Your task to perform on an android device: turn off picture-in-picture Image 0: 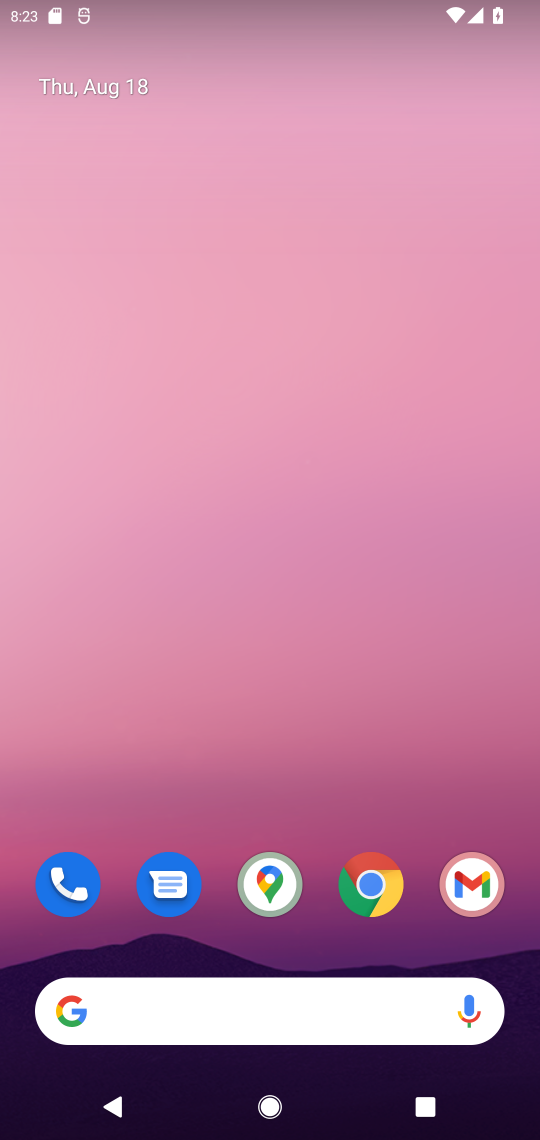
Step 0: click (376, 885)
Your task to perform on an android device: turn off picture-in-picture Image 1: 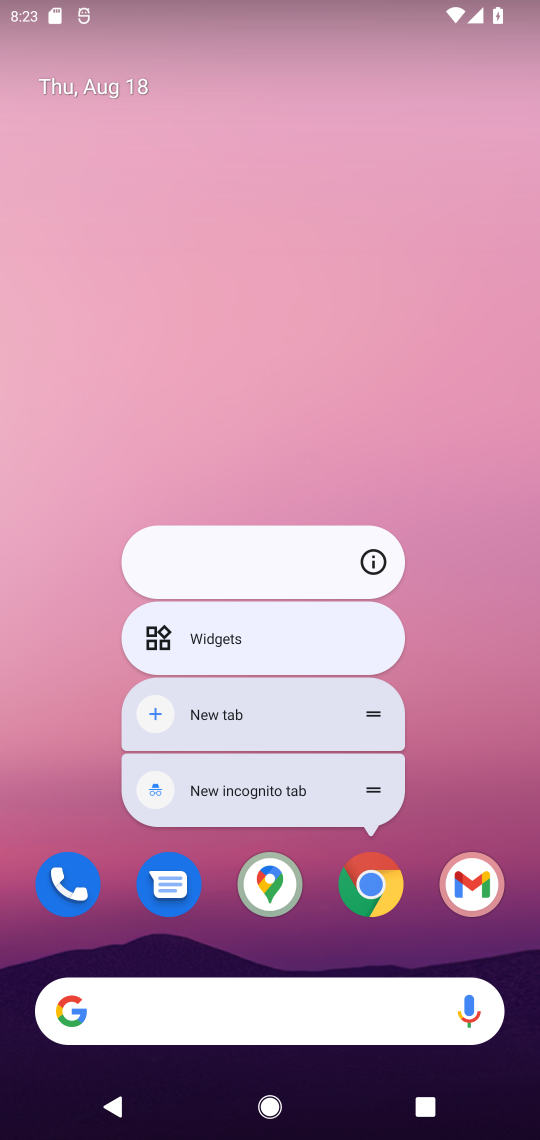
Step 1: click (369, 566)
Your task to perform on an android device: turn off picture-in-picture Image 2: 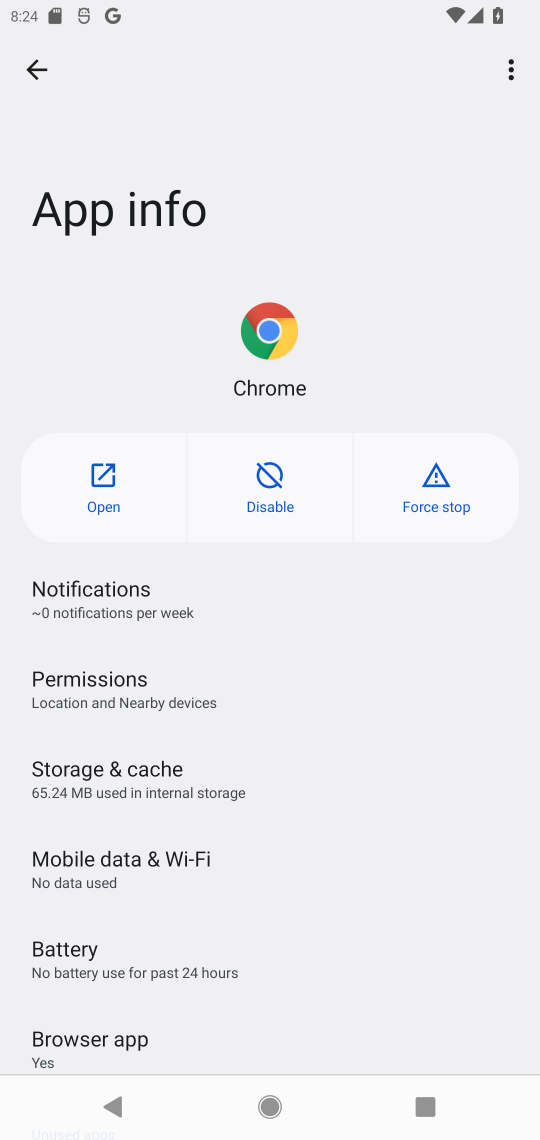
Step 2: drag from (425, 980) to (337, 200)
Your task to perform on an android device: turn off picture-in-picture Image 3: 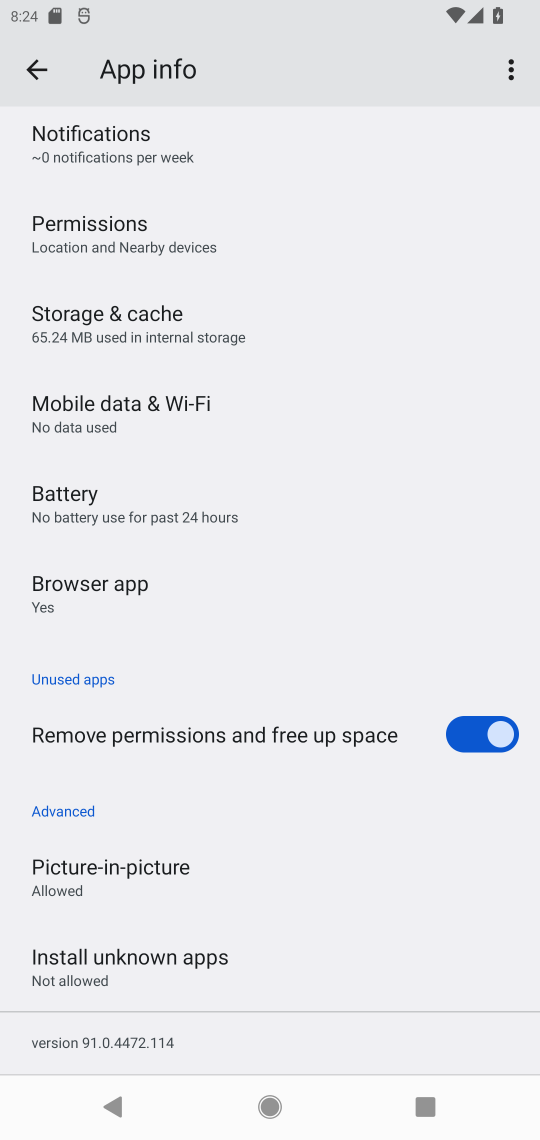
Step 3: click (250, 930)
Your task to perform on an android device: turn off picture-in-picture Image 4: 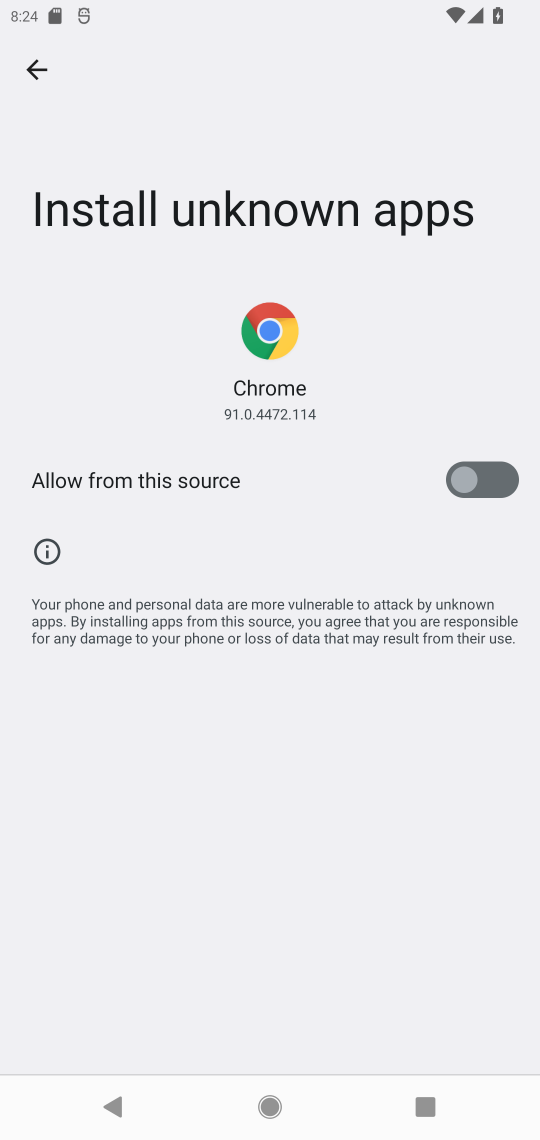
Step 4: click (151, 886)
Your task to perform on an android device: turn off picture-in-picture Image 5: 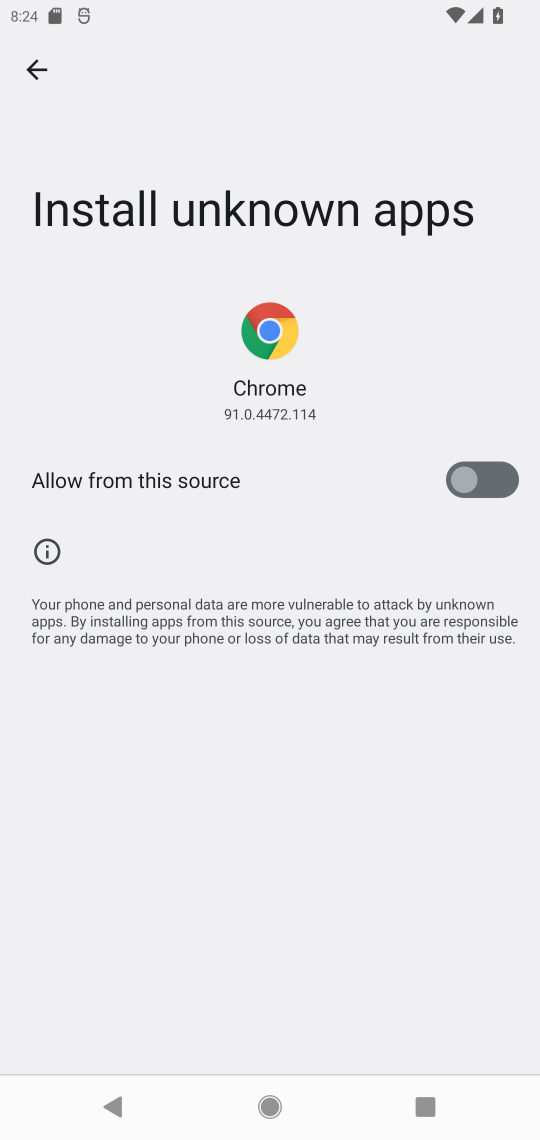
Step 5: click (35, 74)
Your task to perform on an android device: turn off picture-in-picture Image 6: 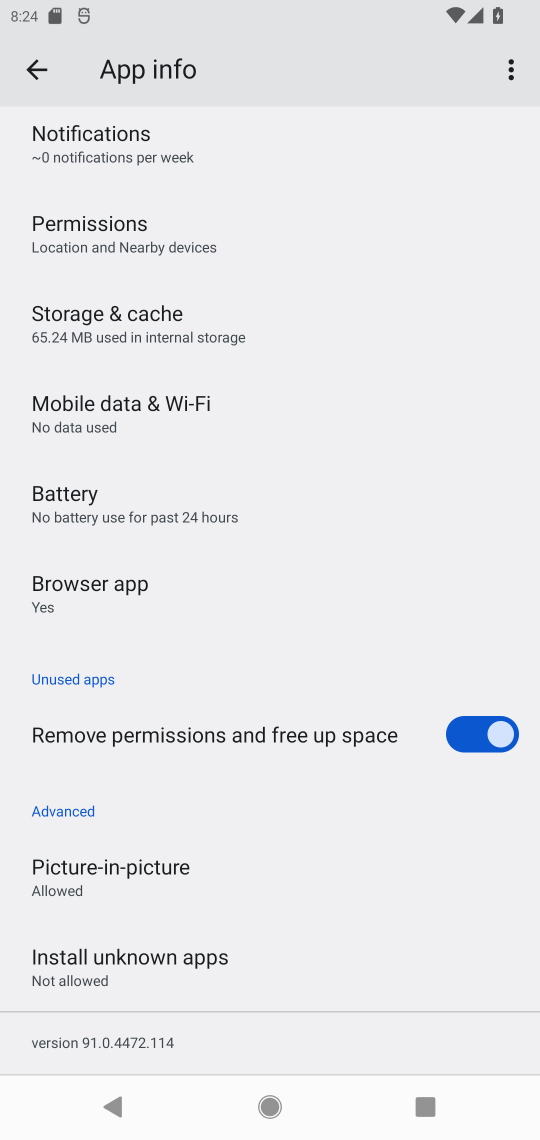
Step 6: click (131, 887)
Your task to perform on an android device: turn off picture-in-picture Image 7: 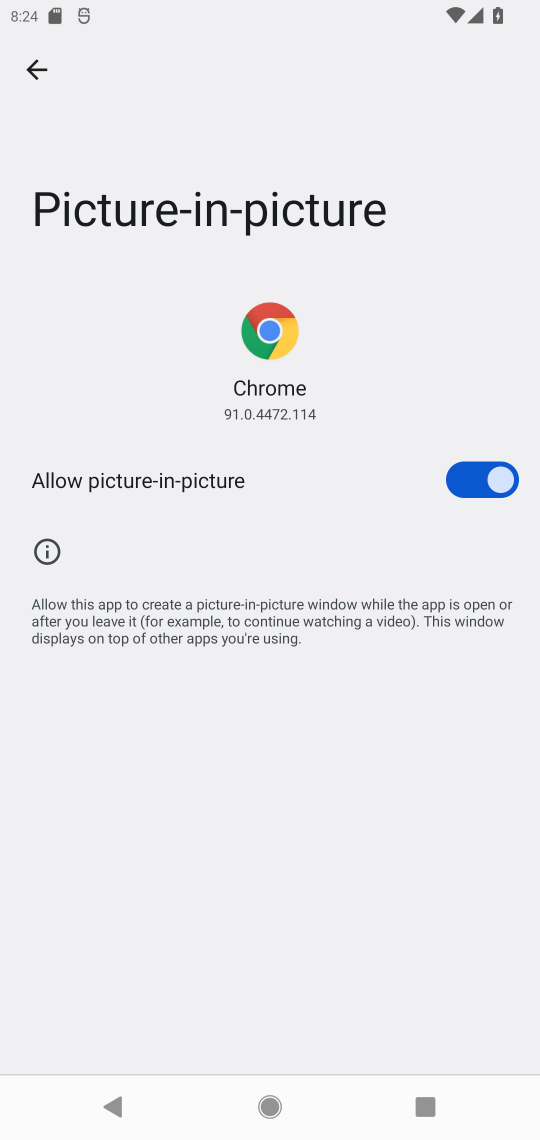
Step 7: click (485, 491)
Your task to perform on an android device: turn off picture-in-picture Image 8: 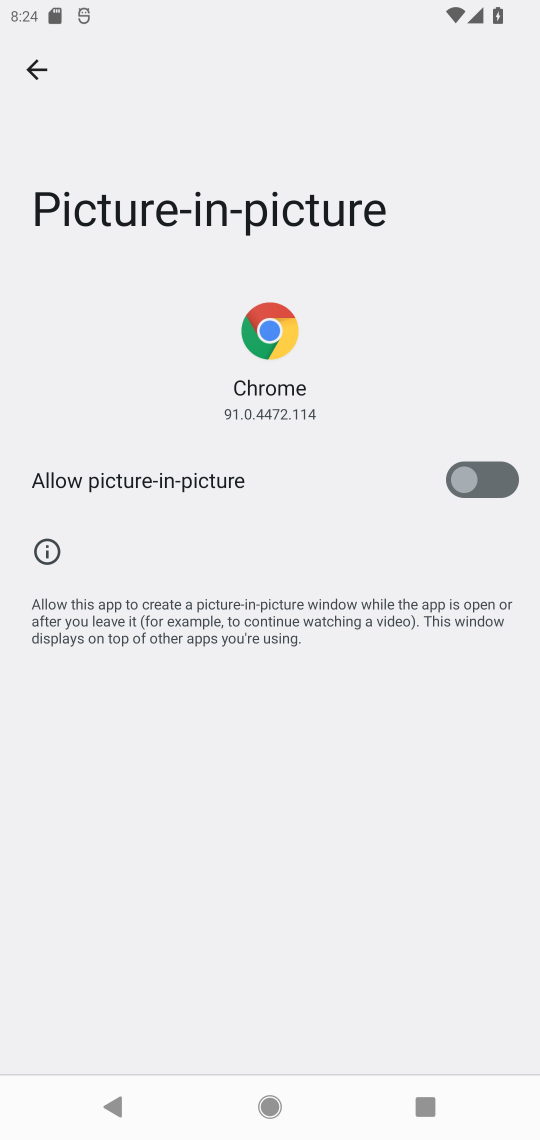
Step 8: task complete